Your task to perform on an android device: turn on showing notifications on the lock screen Image 0: 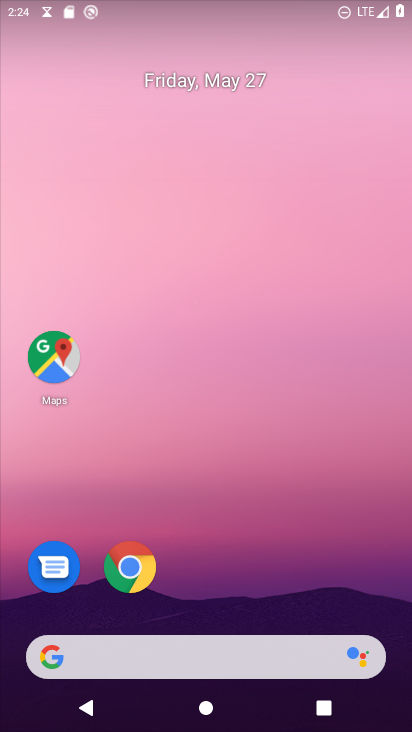
Step 0: drag from (217, 613) to (192, 200)
Your task to perform on an android device: turn on showing notifications on the lock screen Image 1: 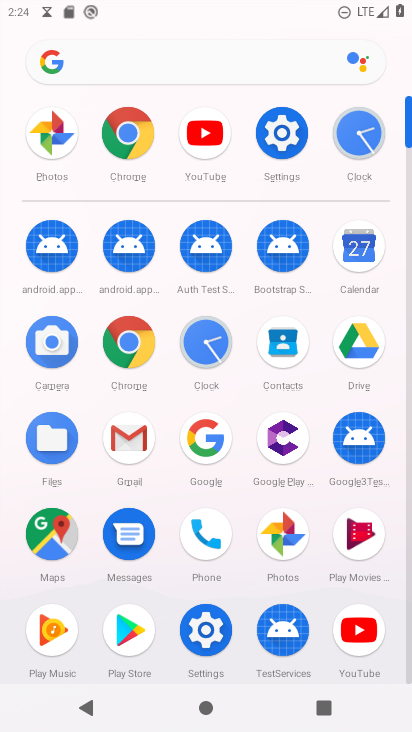
Step 1: click (285, 142)
Your task to perform on an android device: turn on showing notifications on the lock screen Image 2: 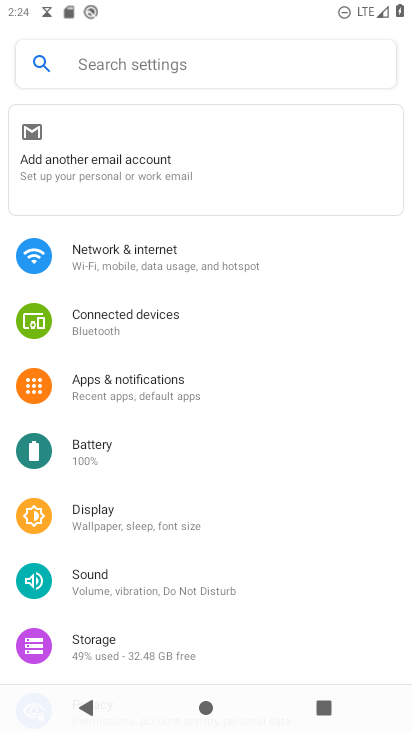
Step 2: click (128, 380)
Your task to perform on an android device: turn on showing notifications on the lock screen Image 3: 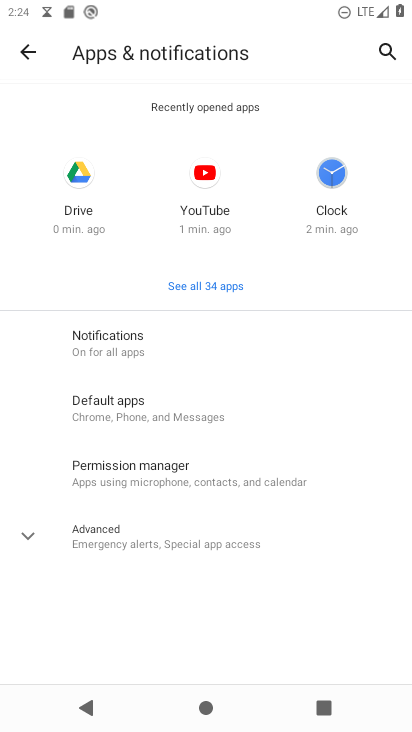
Step 3: click (158, 337)
Your task to perform on an android device: turn on showing notifications on the lock screen Image 4: 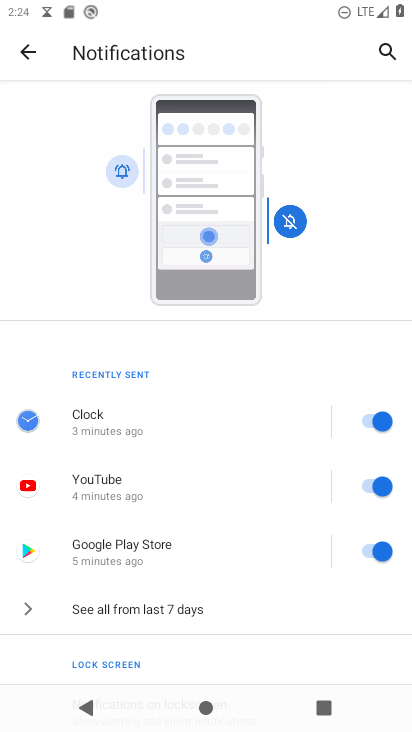
Step 4: drag from (209, 619) to (241, 79)
Your task to perform on an android device: turn on showing notifications on the lock screen Image 5: 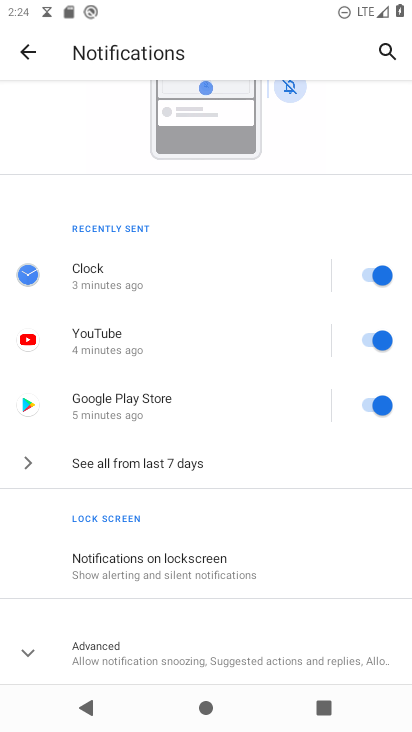
Step 5: click (231, 565)
Your task to perform on an android device: turn on showing notifications on the lock screen Image 6: 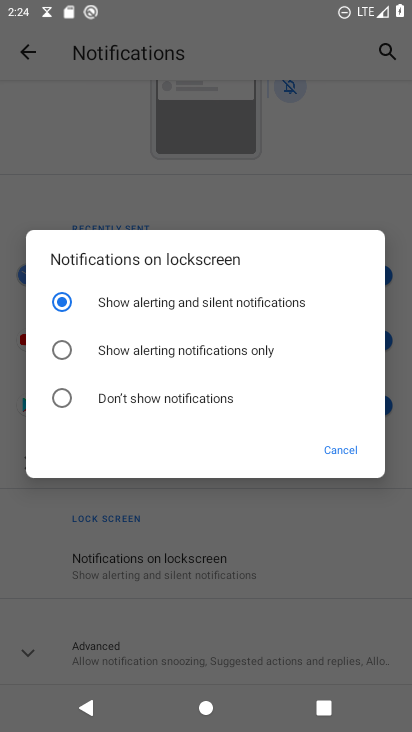
Step 6: task complete